Your task to perform on an android device: Go to accessibility settings Image 0: 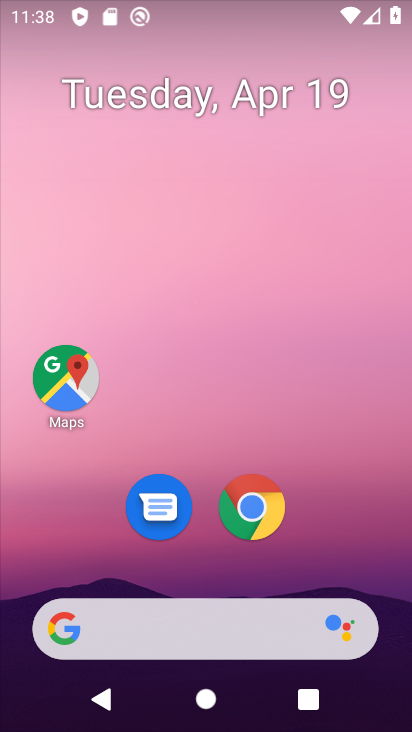
Step 0: drag from (367, 551) to (373, 168)
Your task to perform on an android device: Go to accessibility settings Image 1: 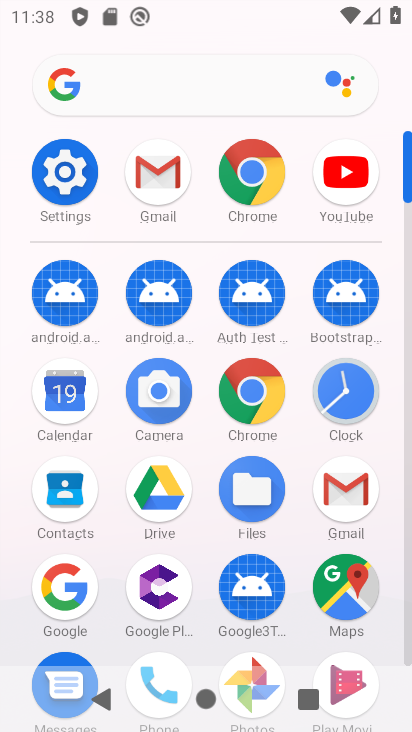
Step 1: drag from (379, 530) to (387, 185)
Your task to perform on an android device: Go to accessibility settings Image 2: 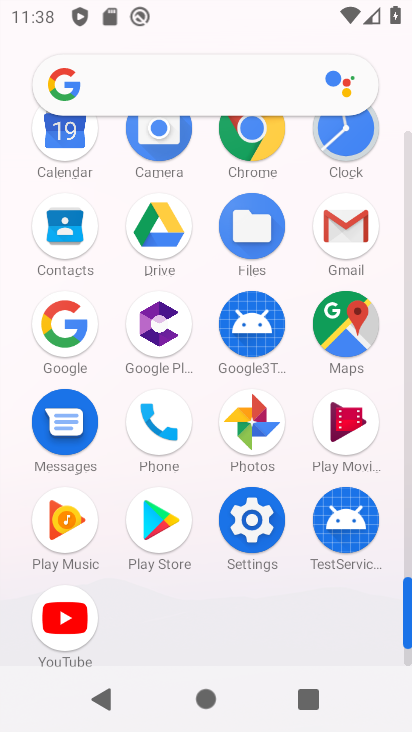
Step 2: click (260, 524)
Your task to perform on an android device: Go to accessibility settings Image 3: 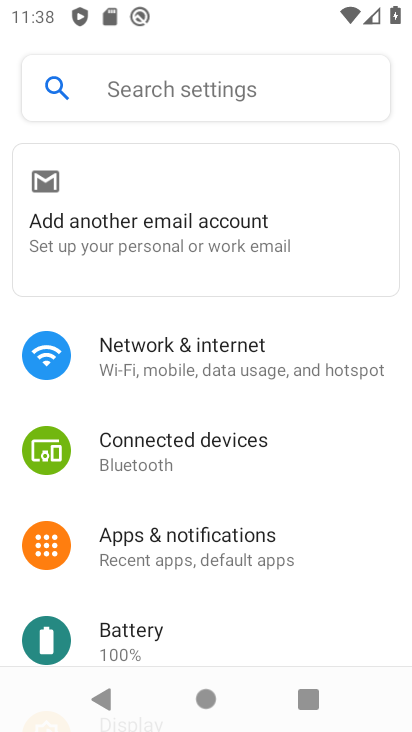
Step 3: drag from (287, 606) to (327, 268)
Your task to perform on an android device: Go to accessibility settings Image 4: 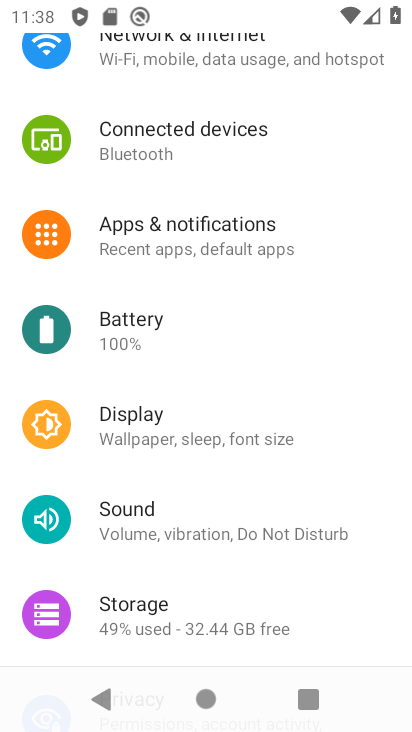
Step 4: drag from (257, 570) to (316, 264)
Your task to perform on an android device: Go to accessibility settings Image 5: 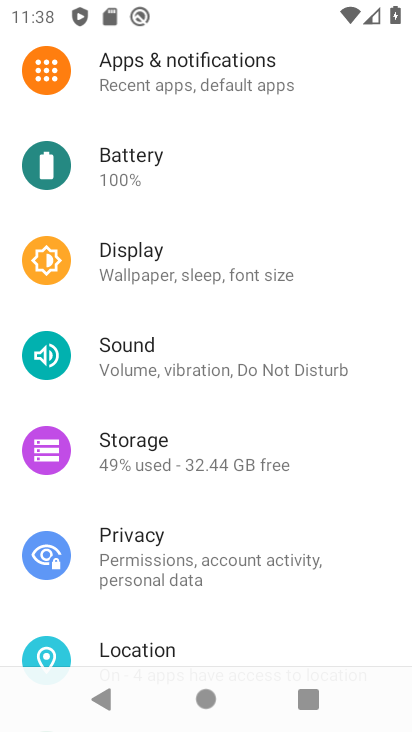
Step 5: drag from (284, 589) to (368, 288)
Your task to perform on an android device: Go to accessibility settings Image 6: 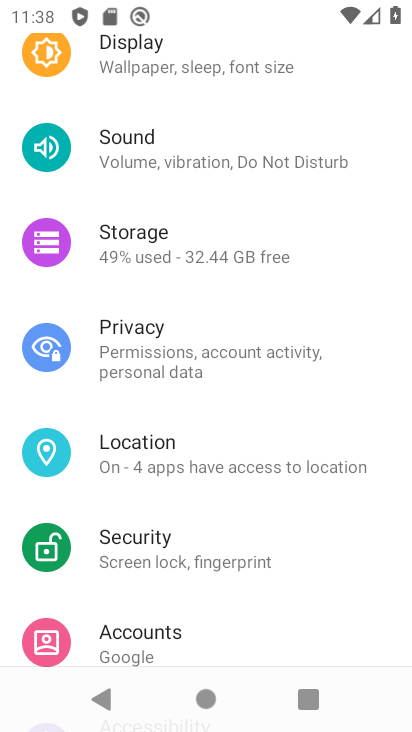
Step 6: drag from (291, 589) to (341, 260)
Your task to perform on an android device: Go to accessibility settings Image 7: 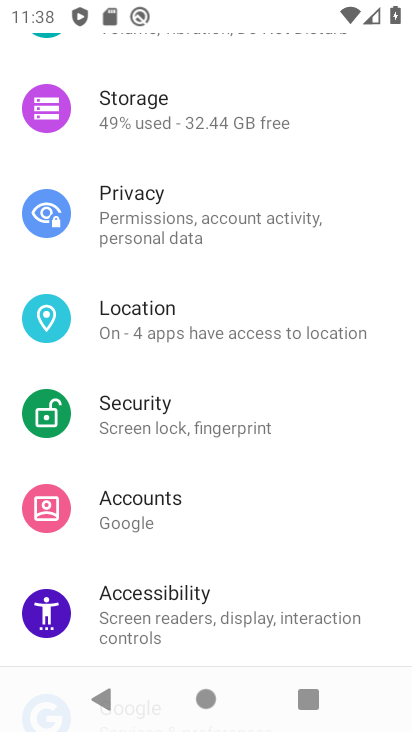
Step 7: click (189, 589)
Your task to perform on an android device: Go to accessibility settings Image 8: 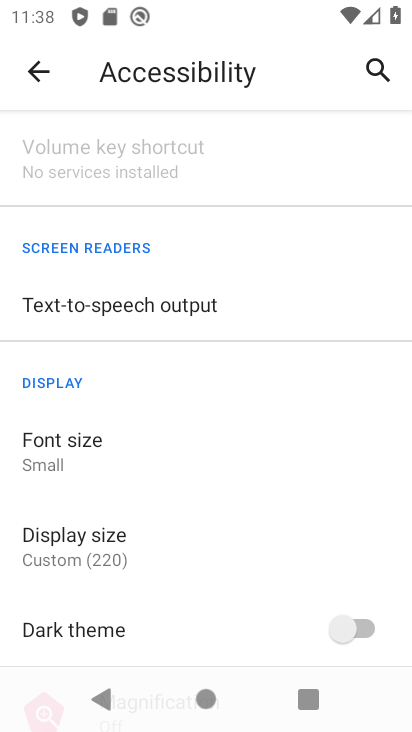
Step 8: task complete